Your task to perform on an android device: Open privacy settings Image 0: 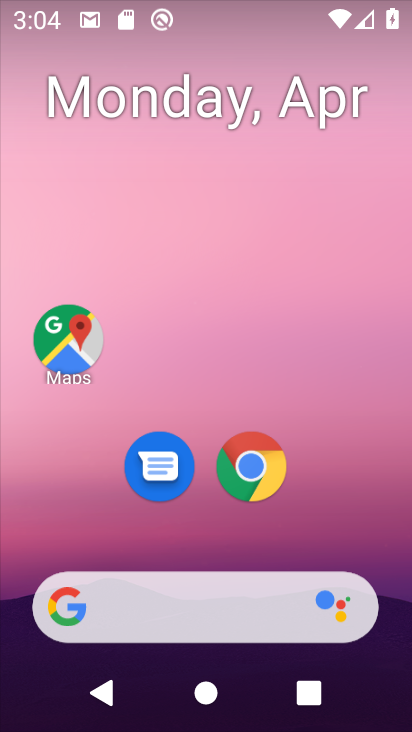
Step 0: drag from (410, 607) to (410, 676)
Your task to perform on an android device: Open privacy settings Image 1: 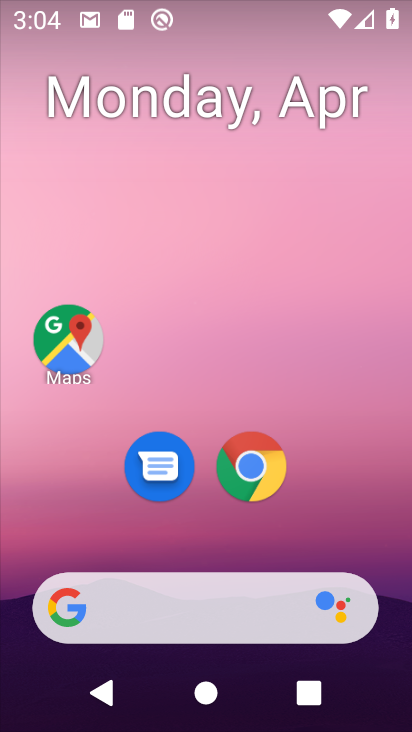
Step 1: drag from (292, 541) to (306, 165)
Your task to perform on an android device: Open privacy settings Image 2: 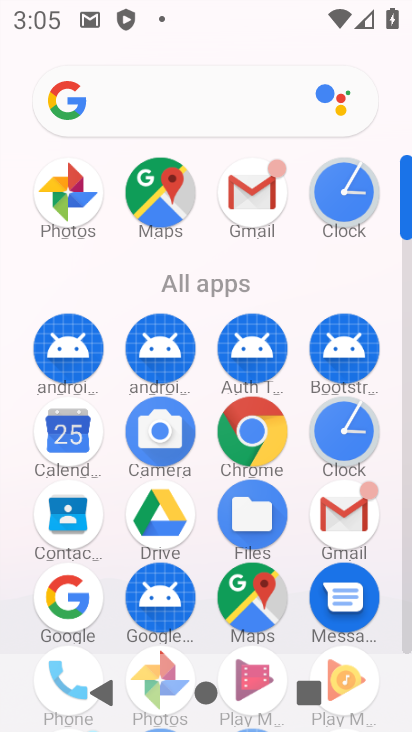
Step 2: drag from (226, 232) to (246, 81)
Your task to perform on an android device: Open privacy settings Image 3: 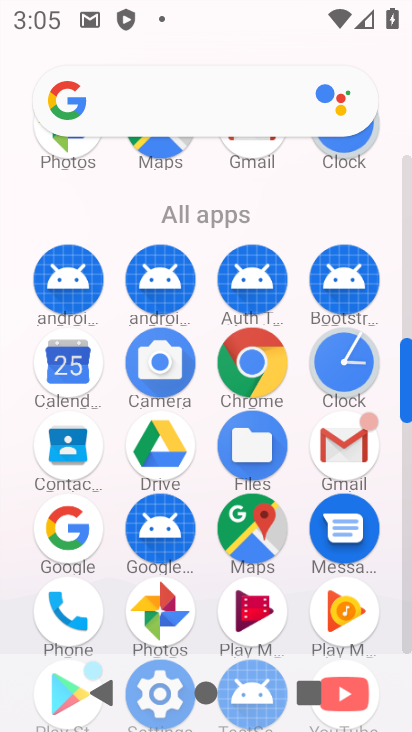
Step 3: drag from (196, 211) to (231, 40)
Your task to perform on an android device: Open privacy settings Image 4: 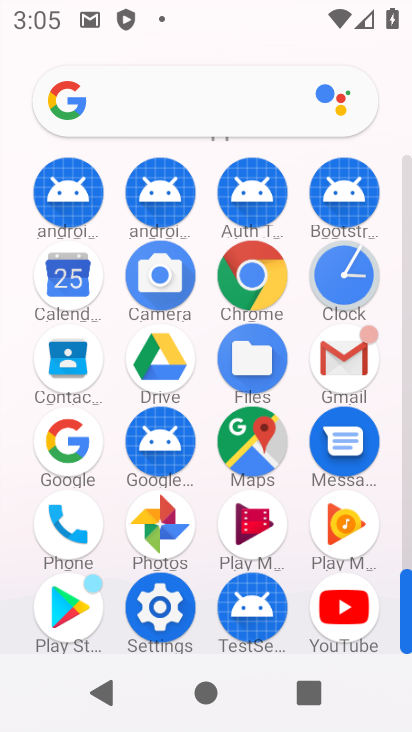
Step 4: click (162, 611)
Your task to perform on an android device: Open privacy settings Image 5: 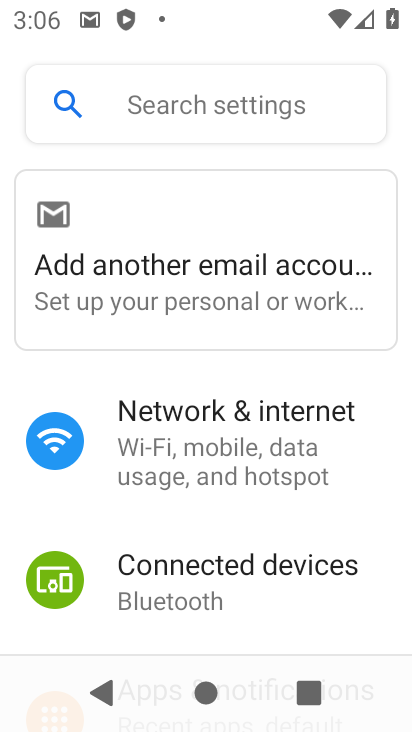
Step 5: drag from (118, 486) to (163, 324)
Your task to perform on an android device: Open privacy settings Image 6: 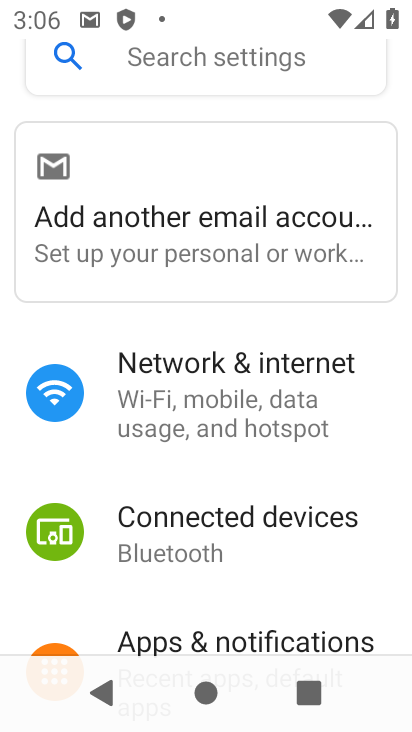
Step 6: drag from (242, 603) to (267, 329)
Your task to perform on an android device: Open privacy settings Image 7: 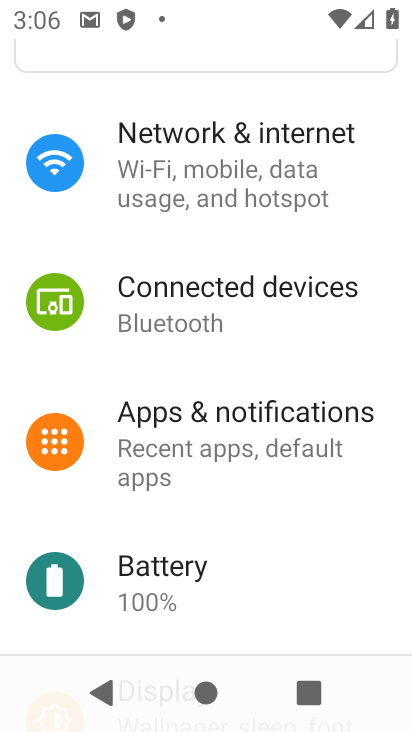
Step 7: drag from (233, 532) to (232, 319)
Your task to perform on an android device: Open privacy settings Image 8: 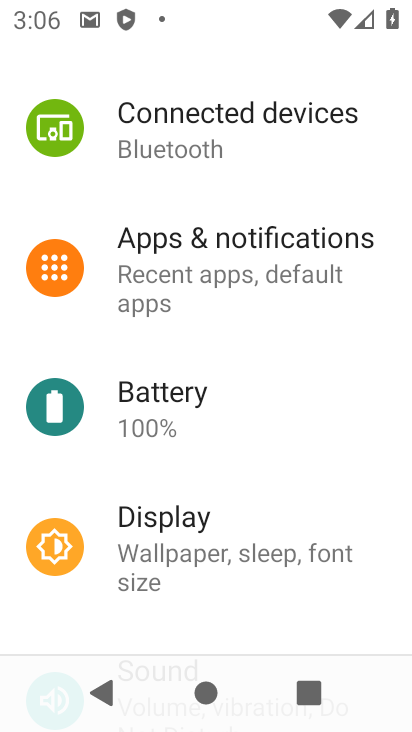
Step 8: drag from (252, 423) to (252, 558)
Your task to perform on an android device: Open privacy settings Image 9: 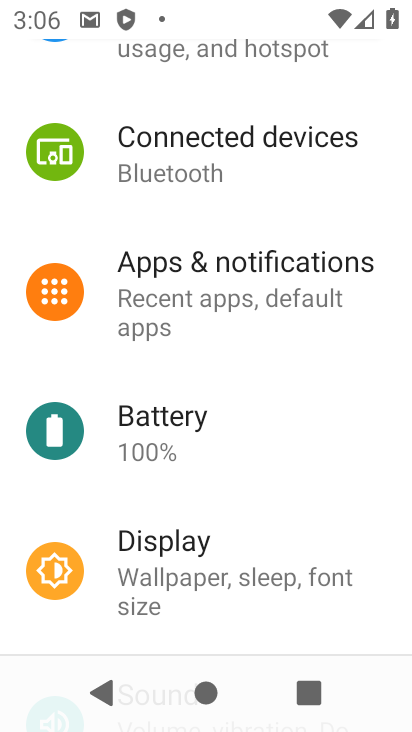
Step 9: drag from (258, 393) to (249, 574)
Your task to perform on an android device: Open privacy settings Image 10: 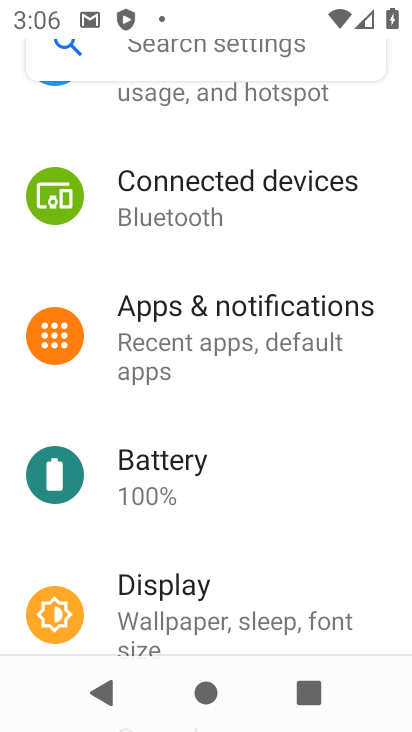
Step 10: drag from (233, 271) to (237, 606)
Your task to perform on an android device: Open privacy settings Image 11: 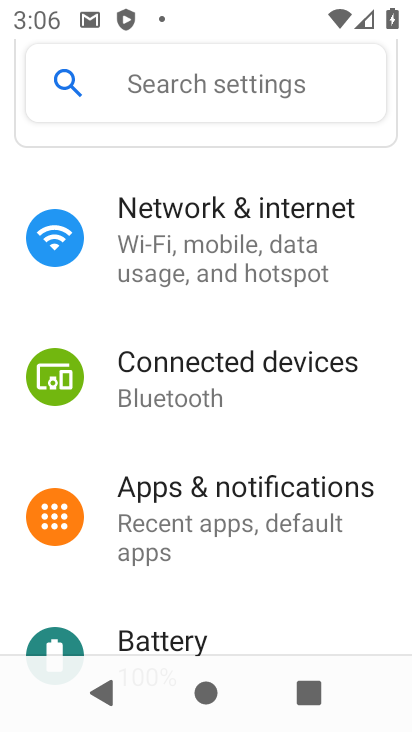
Step 11: drag from (227, 352) to (233, 588)
Your task to perform on an android device: Open privacy settings Image 12: 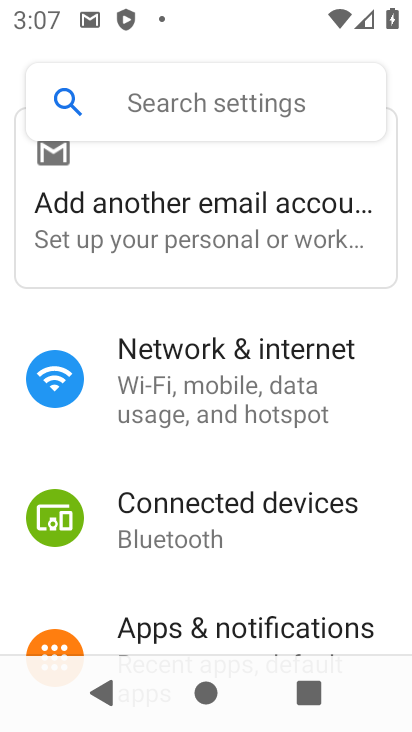
Step 12: drag from (179, 571) to (192, 251)
Your task to perform on an android device: Open privacy settings Image 13: 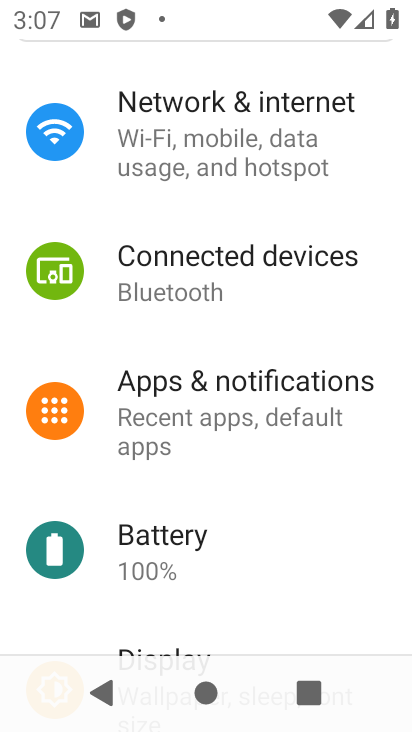
Step 13: drag from (209, 577) to (204, 314)
Your task to perform on an android device: Open privacy settings Image 14: 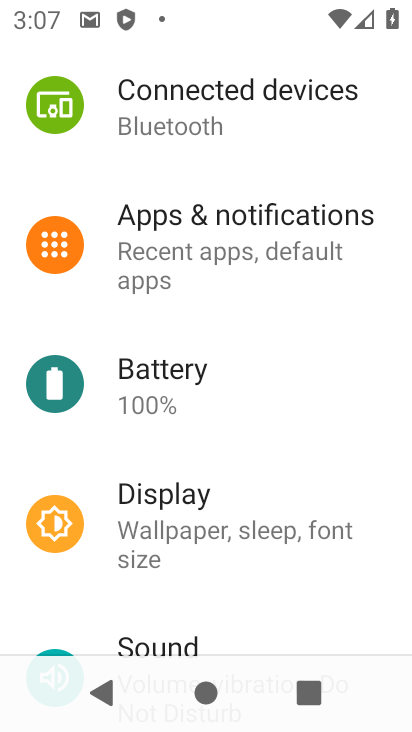
Step 14: drag from (228, 608) to (219, 314)
Your task to perform on an android device: Open privacy settings Image 15: 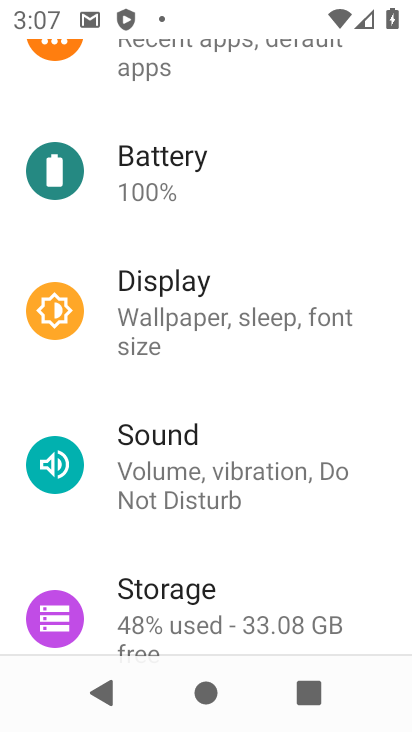
Step 15: drag from (192, 542) to (184, 182)
Your task to perform on an android device: Open privacy settings Image 16: 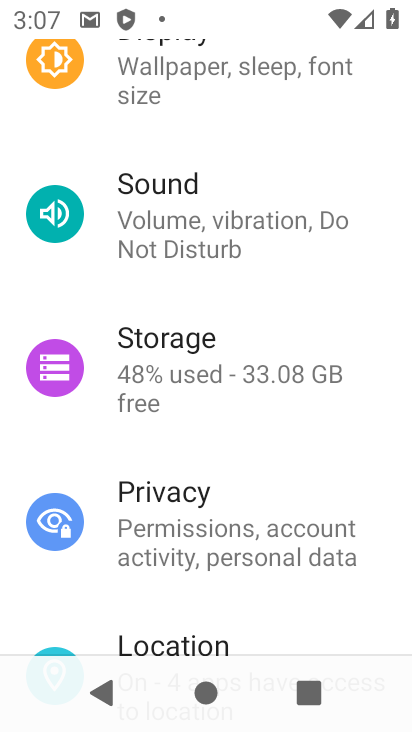
Step 16: drag from (210, 556) to (210, 266)
Your task to perform on an android device: Open privacy settings Image 17: 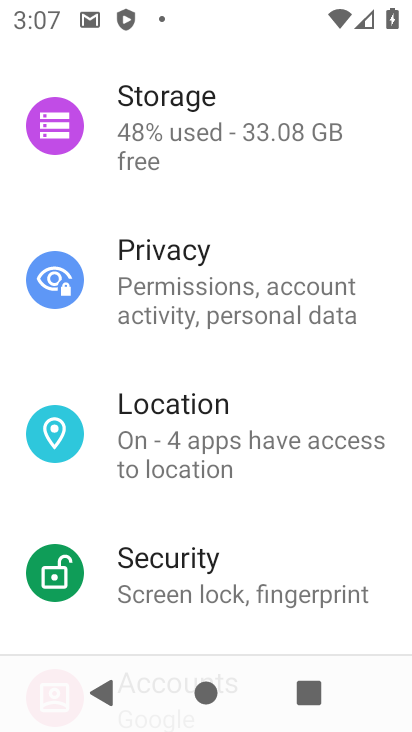
Step 17: click (207, 292)
Your task to perform on an android device: Open privacy settings Image 18: 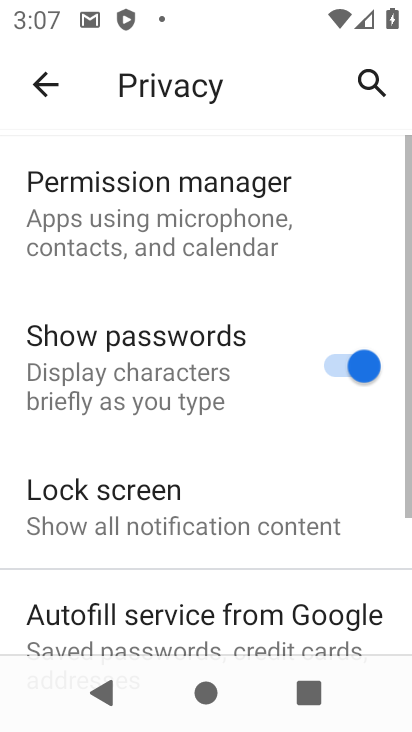
Step 18: task complete